Your task to perform on an android device: What's on my calendar today? Image 0: 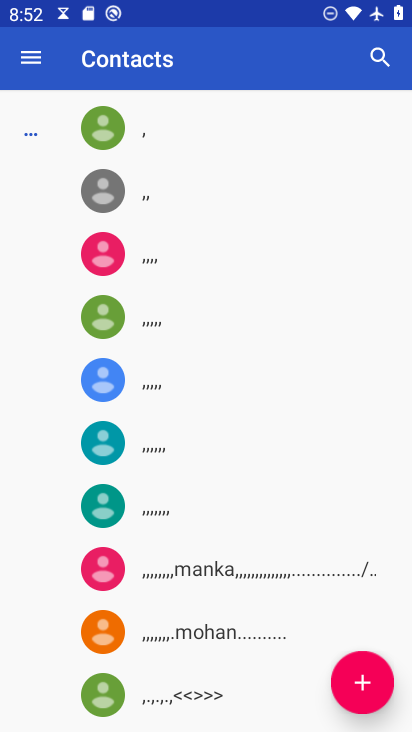
Step 0: press back button
Your task to perform on an android device: What's on my calendar today? Image 1: 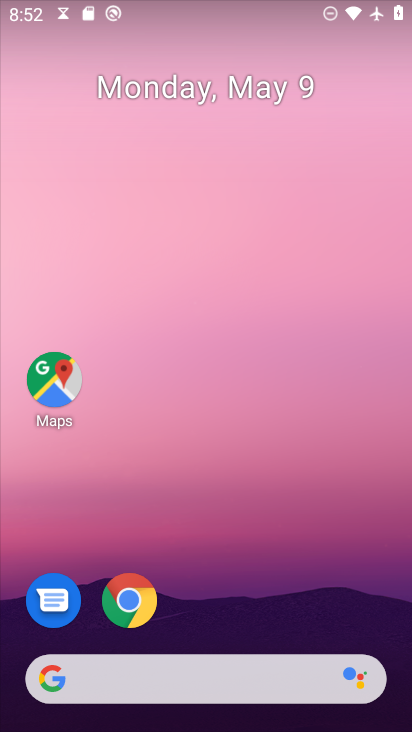
Step 1: drag from (242, 557) to (218, 11)
Your task to perform on an android device: What's on my calendar today? Image 2: 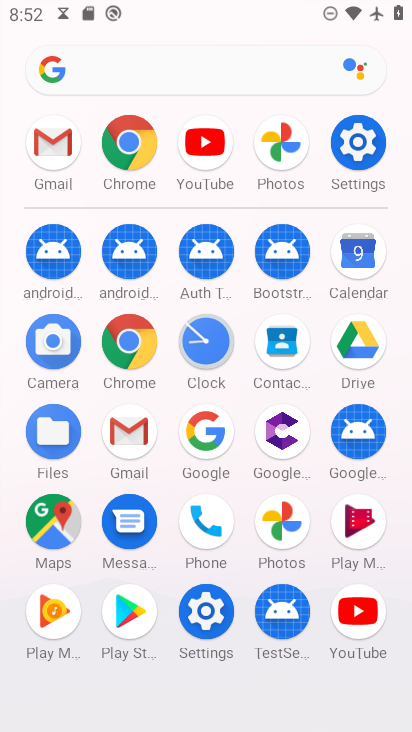
Step 2: drag from (10, 572) to (5, 335)
Your task to perform on an android device: What's on my calendar today? Image 3: 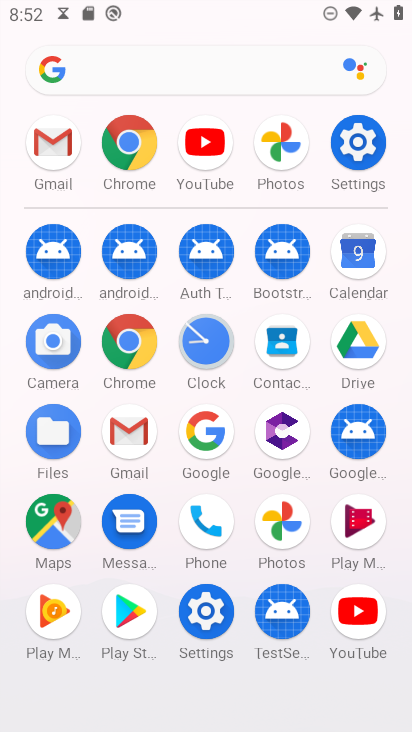
Step 3: click (354, 252)
Your task to perform on an android device: What's on my calendar today? Image 4: 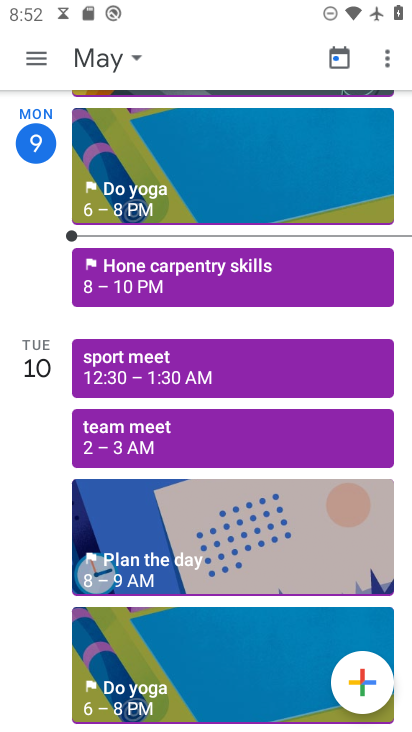
Step 4: drag from (220, 189) to (218, 152)
Your task to perform on an android device: What's on my calendar today? Image 5: 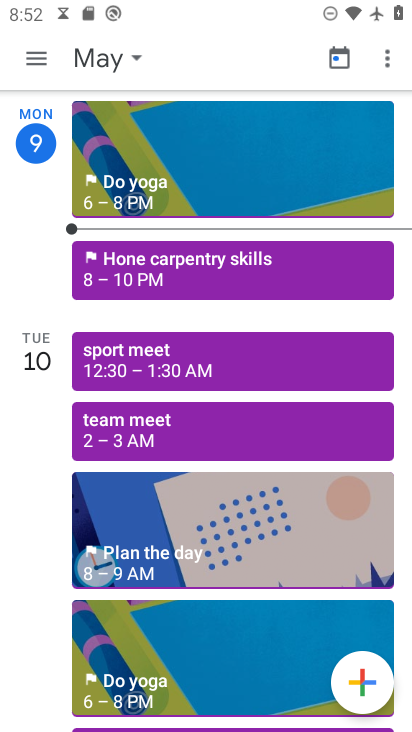
Step 5: drag from (172, 502) to (218, 107)
Your task to perform on an android device: What's on my calendar today? Image 6: 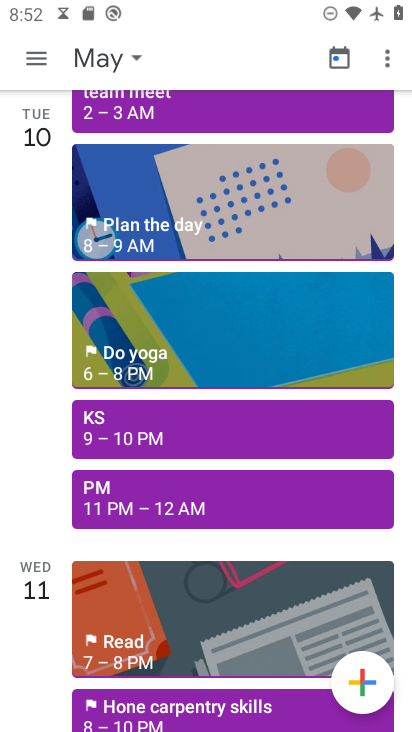
Step 6: drag from (204, 501) to (246, 127)
Your task to perform on an android device: What's on my calendar today? Image 7: 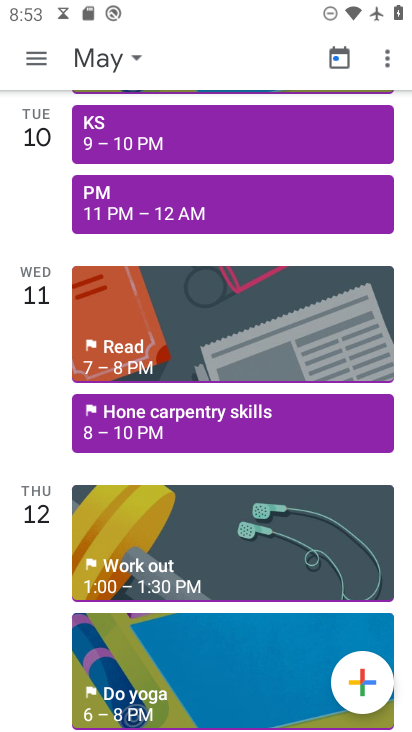
Step 7: drag from (193, 504) to (222, 157)
Your task to perform on an android device: What's on my calendar today? Image 8: 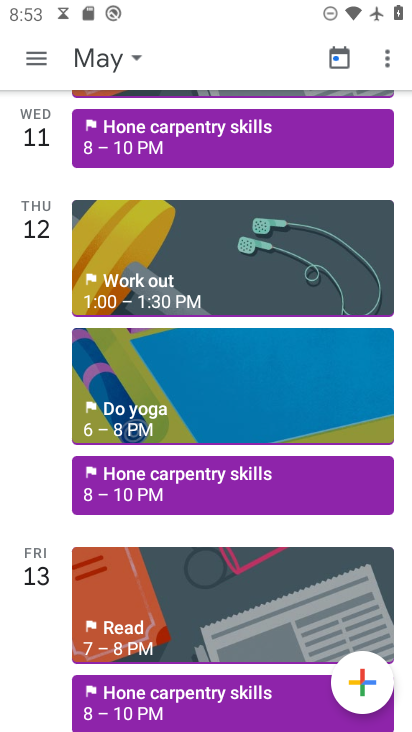
Step 8: drag from (197, 562) to (260, 166)
Your task to perform on an android device: What's on my calendar today? Image 9: 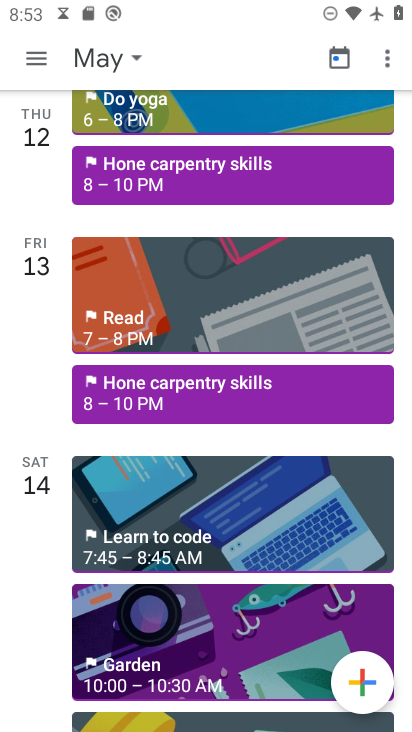
Step 9: click (328, 49)
Your task to perform on an android device: What's on my calendar today? Image 10: 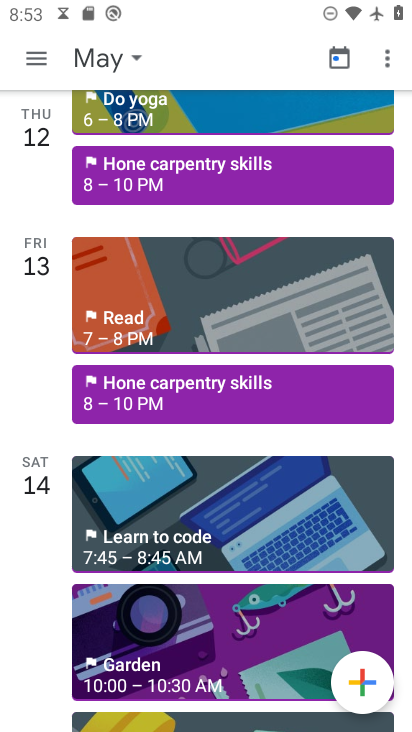
Step 10: click (343, 57)
Your task to perform on an android device: What's on my calendar today? Image 11: 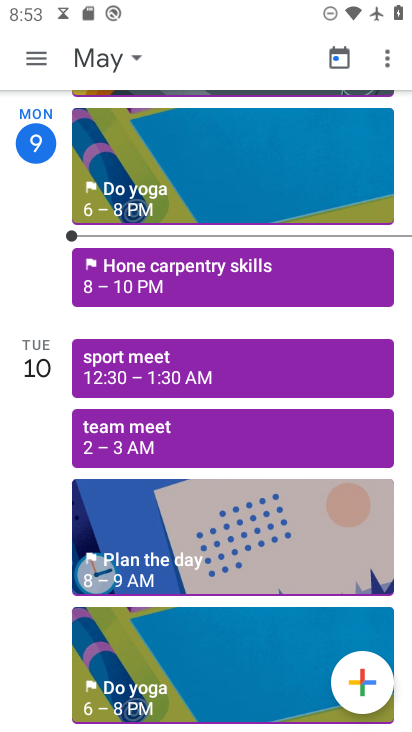
Step 11: task complete